Your task to perform on an android device: Open Chrome and go to settings Image 0: 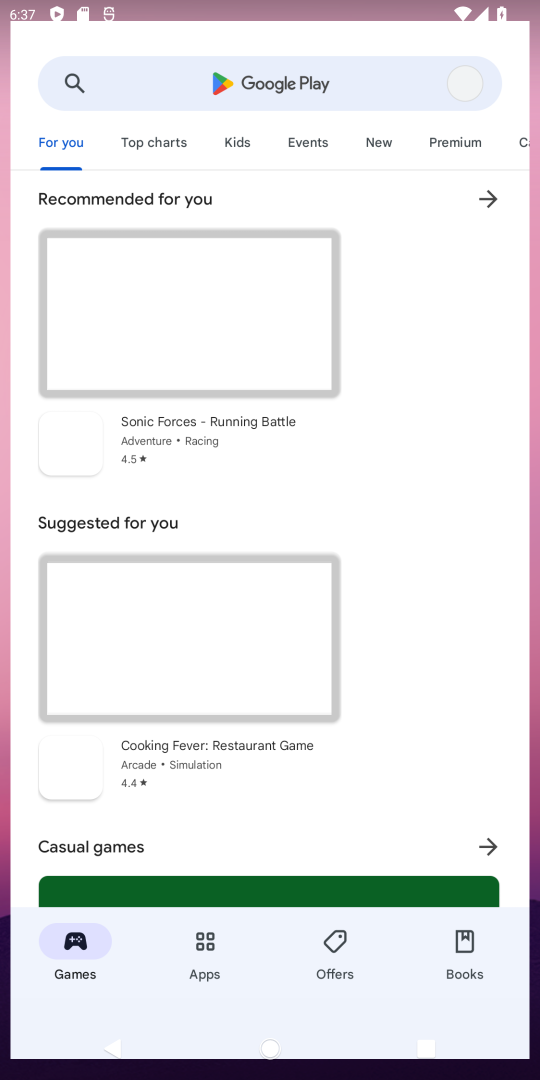
Step 0: press home button
Your task to perform on an android device: Open Chrome and go to settings Image 1: 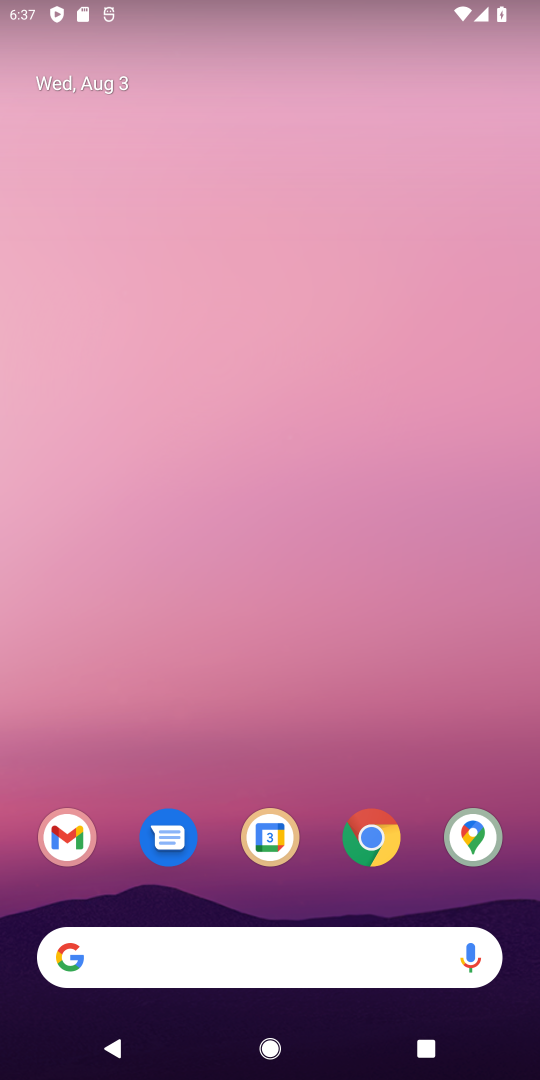
Step 1: click (373, 844)
Your task to perform on an android device: Open Chrome and go to settings Image 2: 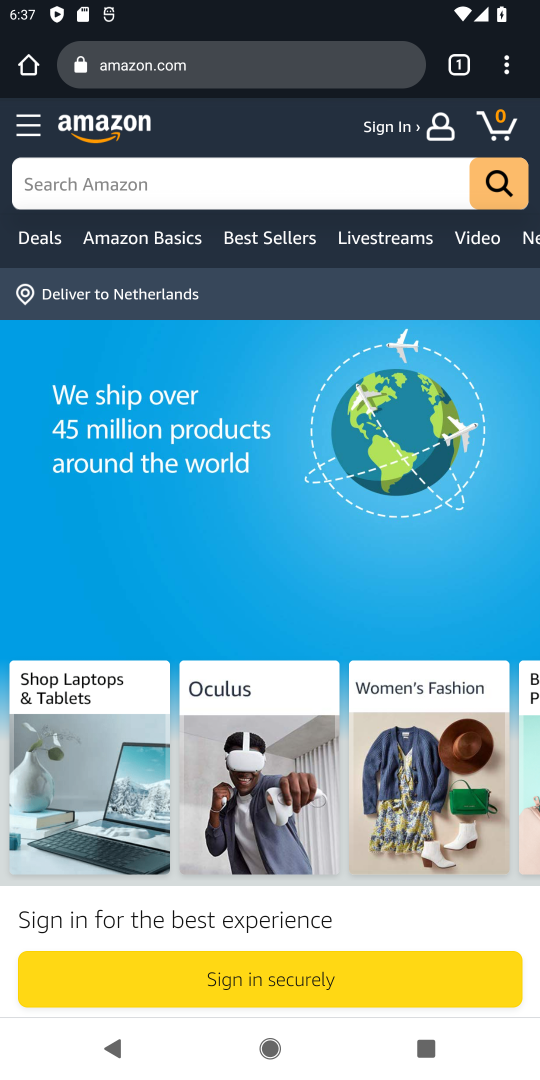
Step 2: task complete